Your task to perform on an android device: turn on improve location accuracy Image 0: 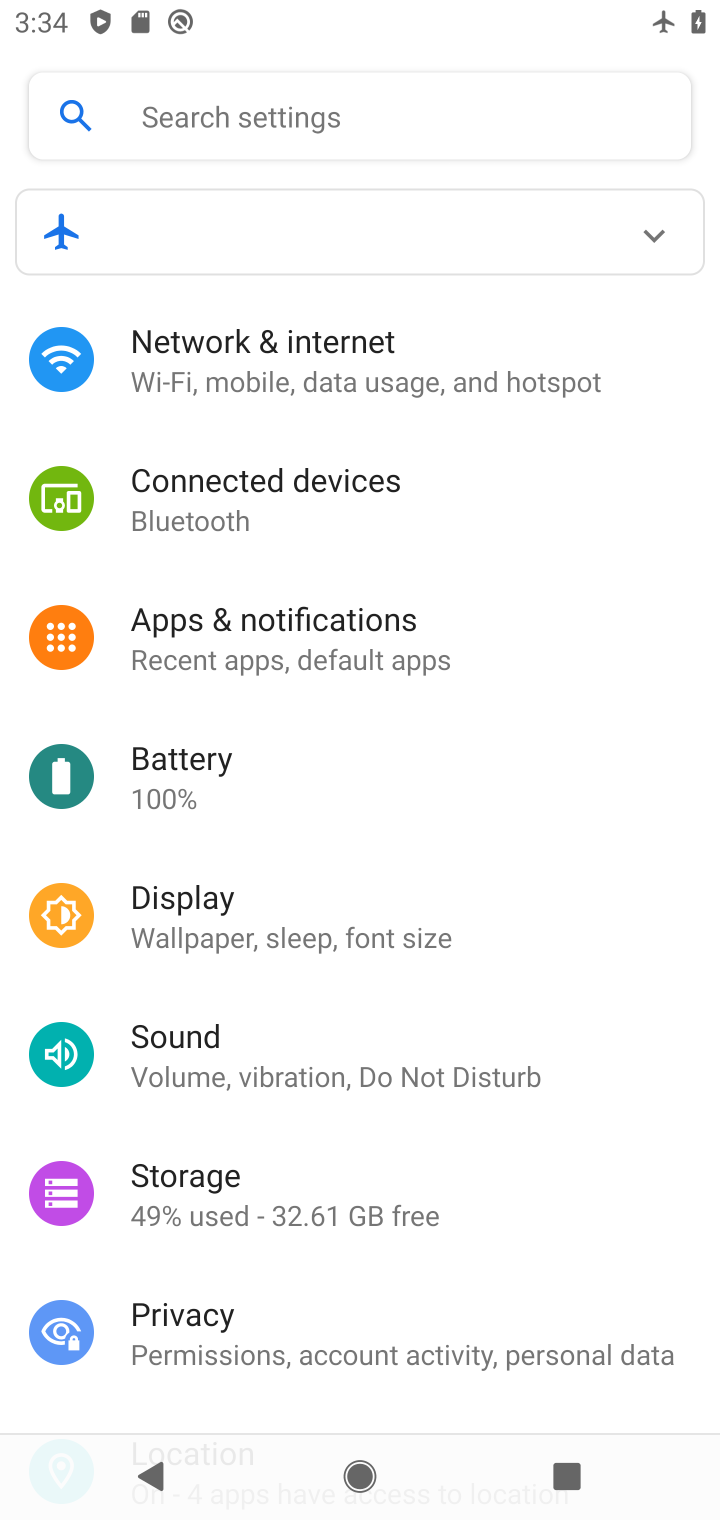
Step 0: click (530, 153)
Your task to perform on an android device: turn on improve location accuracy Image 1: 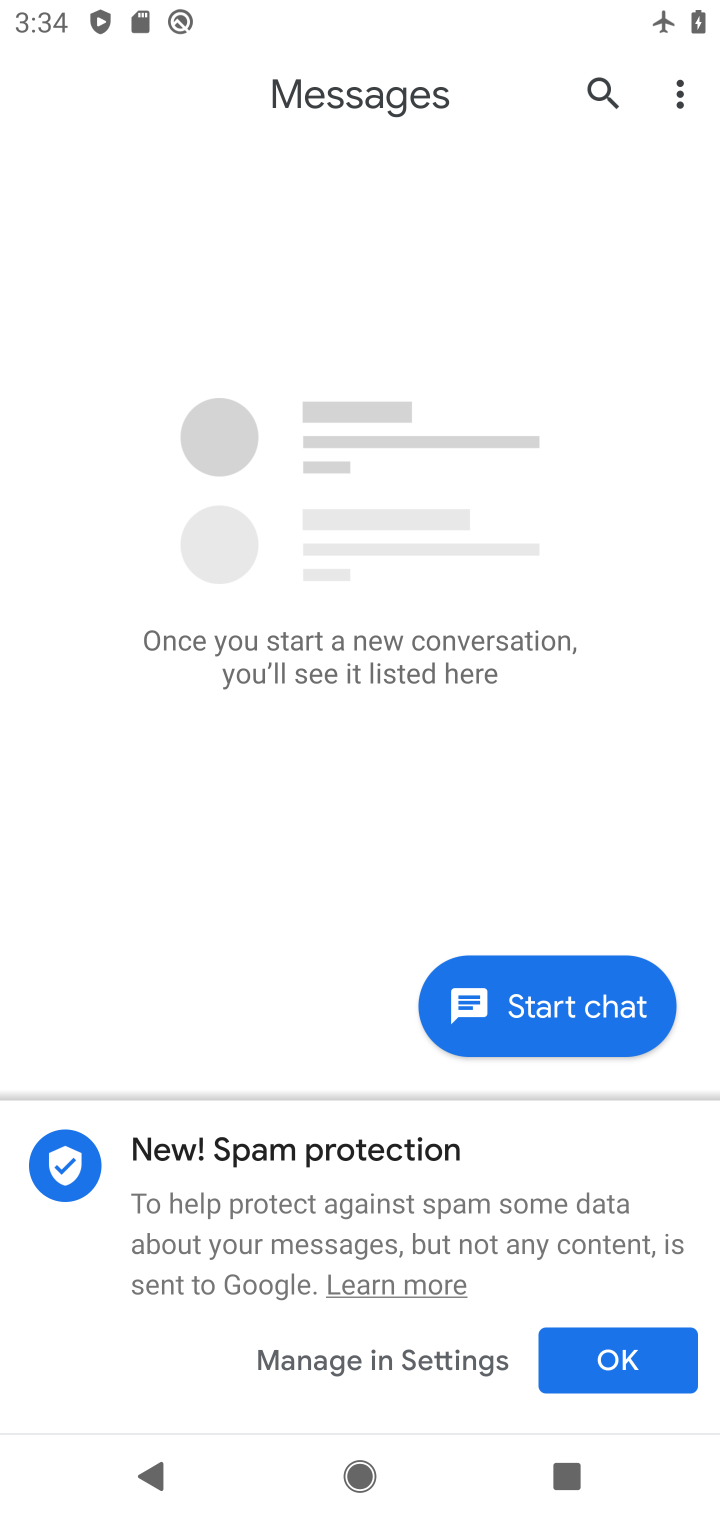
Step 1: press home button
Your task to perform on an android device: turn on improve location accuracy Image 2: 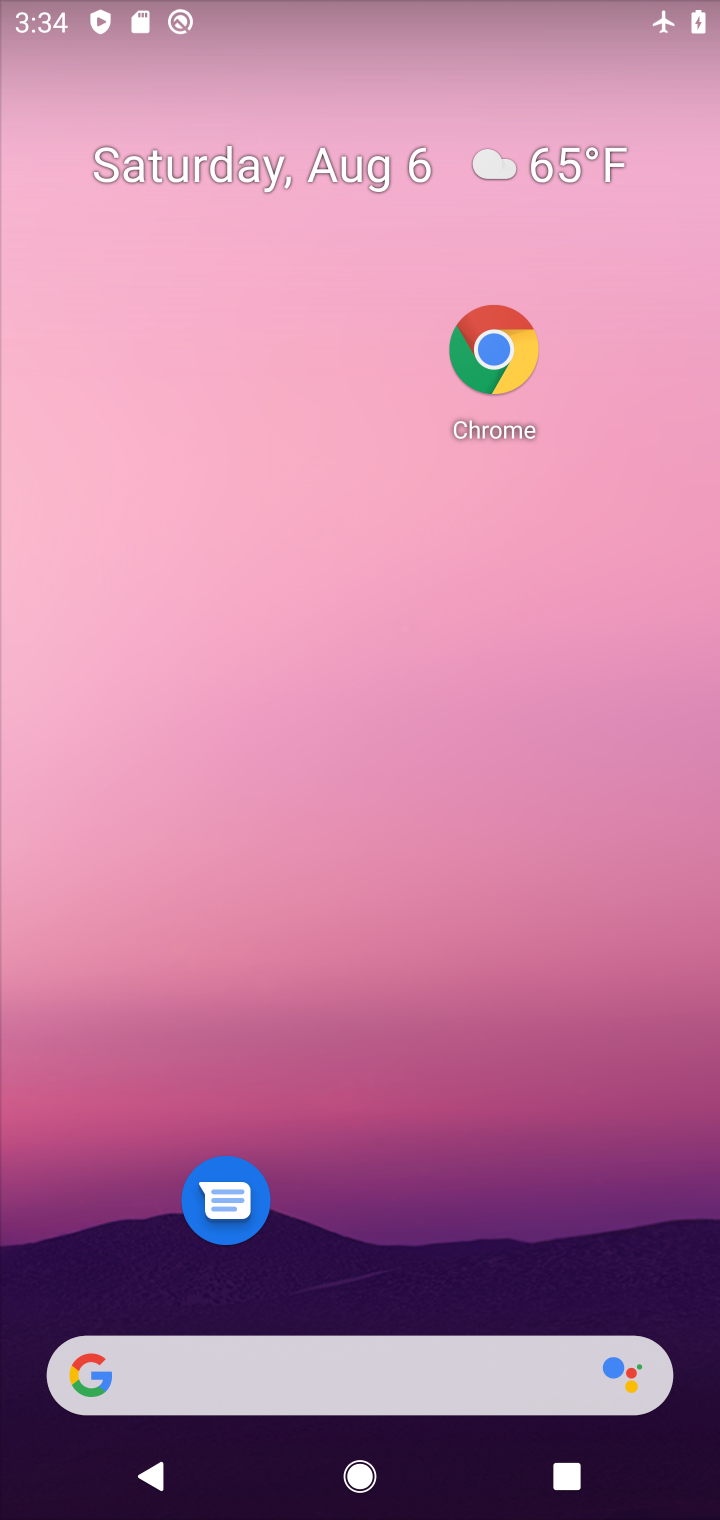
Step 2: drag from (291, 1296) to (490, 437)
Your task to perform on an android device: turn on improve location accuracy Image 3: 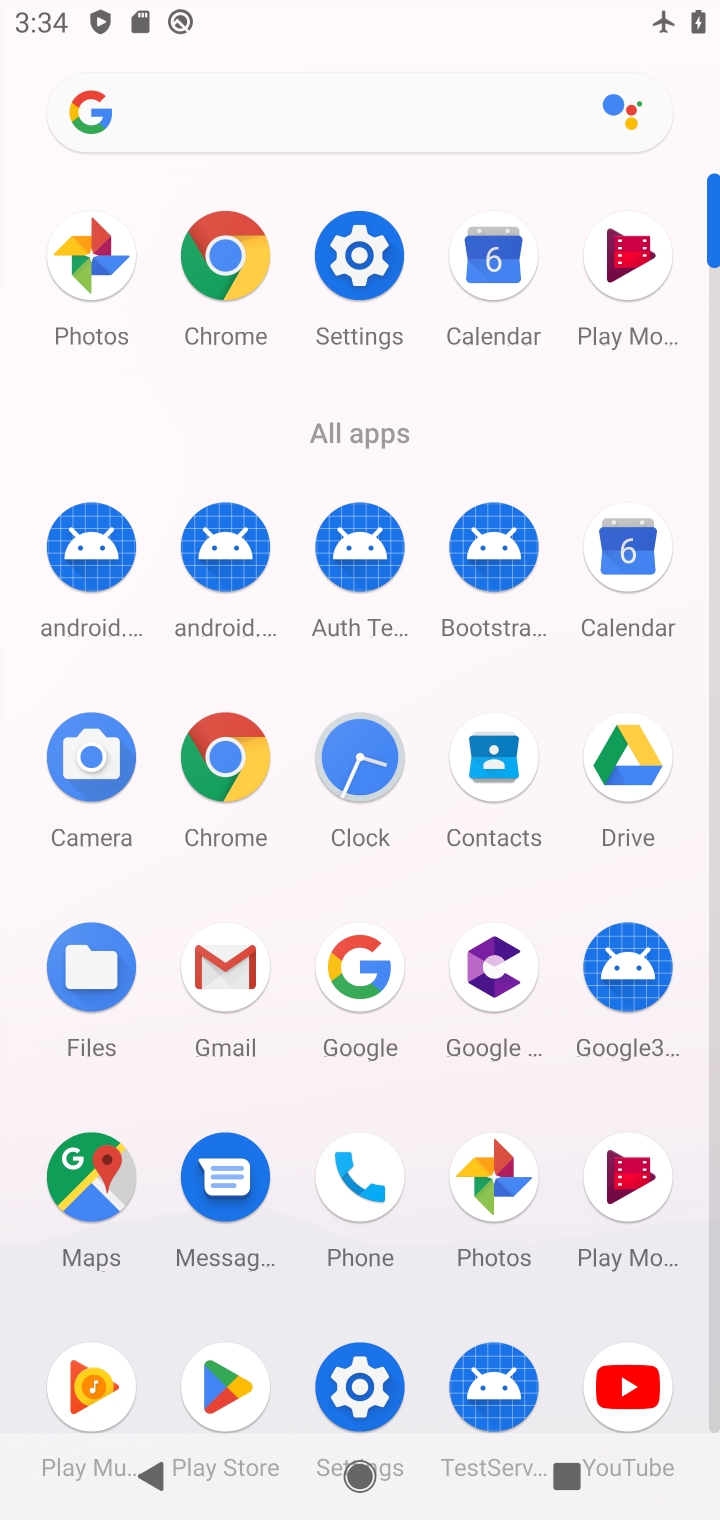
Step 3: click (375, 1383)
Your task to perform on an android device: turn on improve location accuracy Image 4: 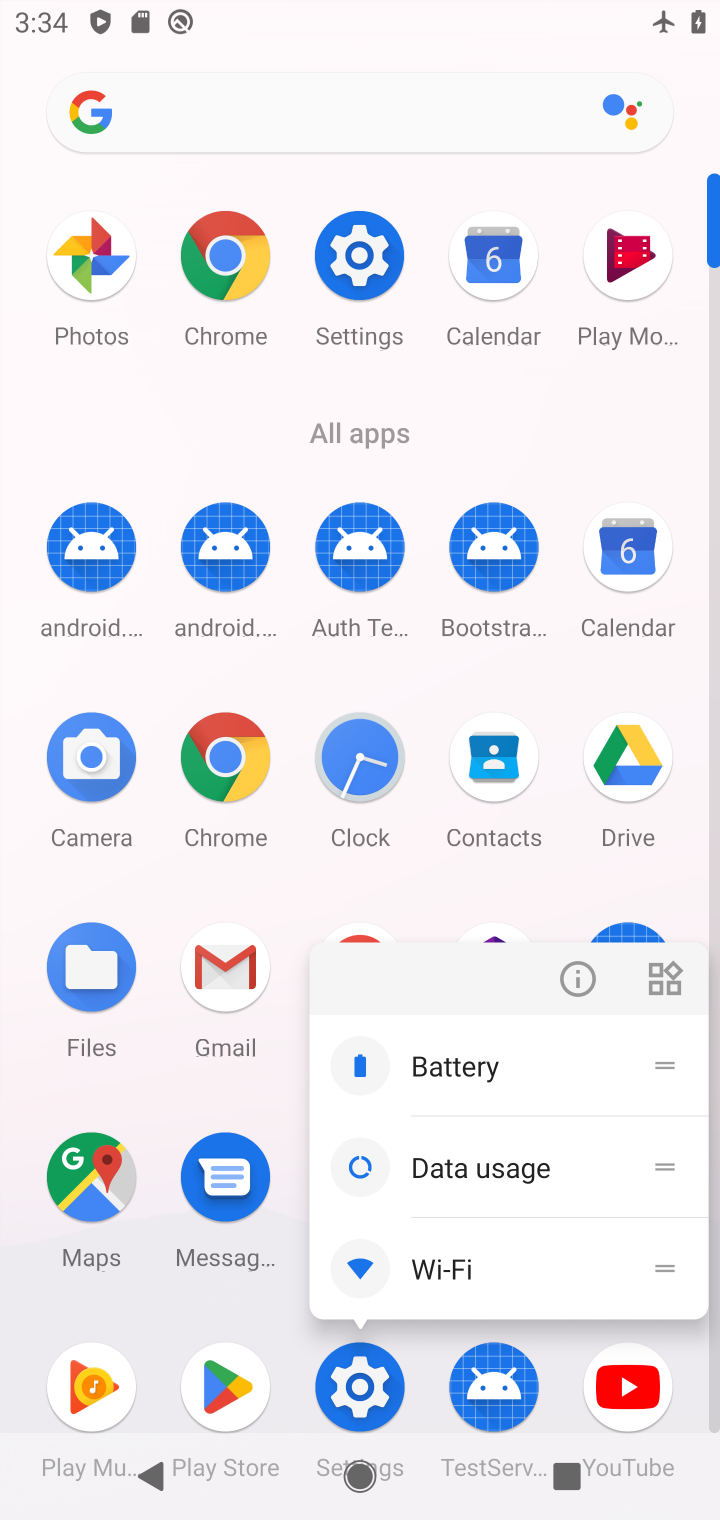
Step 4: click (375, 1383)
Your task to perform on an android device: turn on improve location accuracy Image 5: 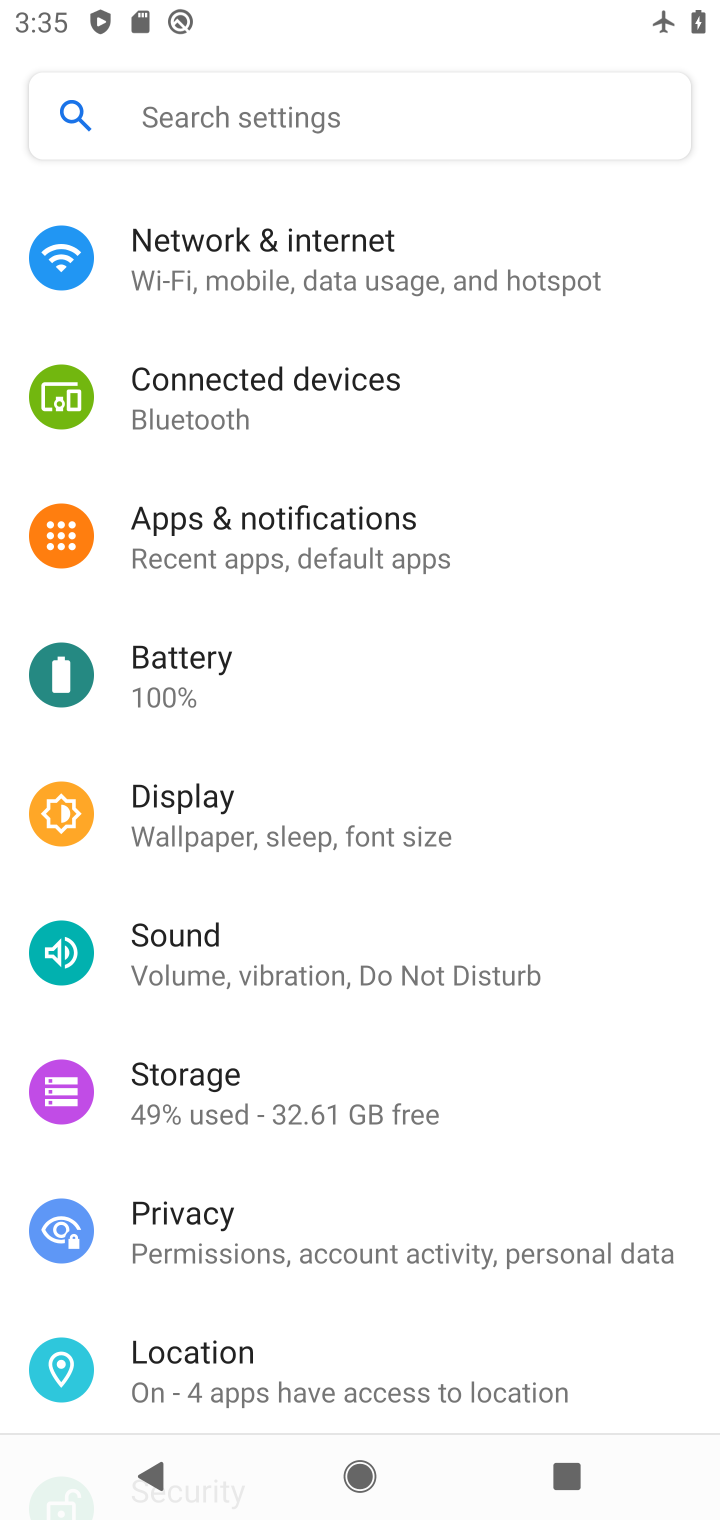
Step 5: click (396, 1377)
Your task to perform on an android device: turn on improve location accuracy Image 6: 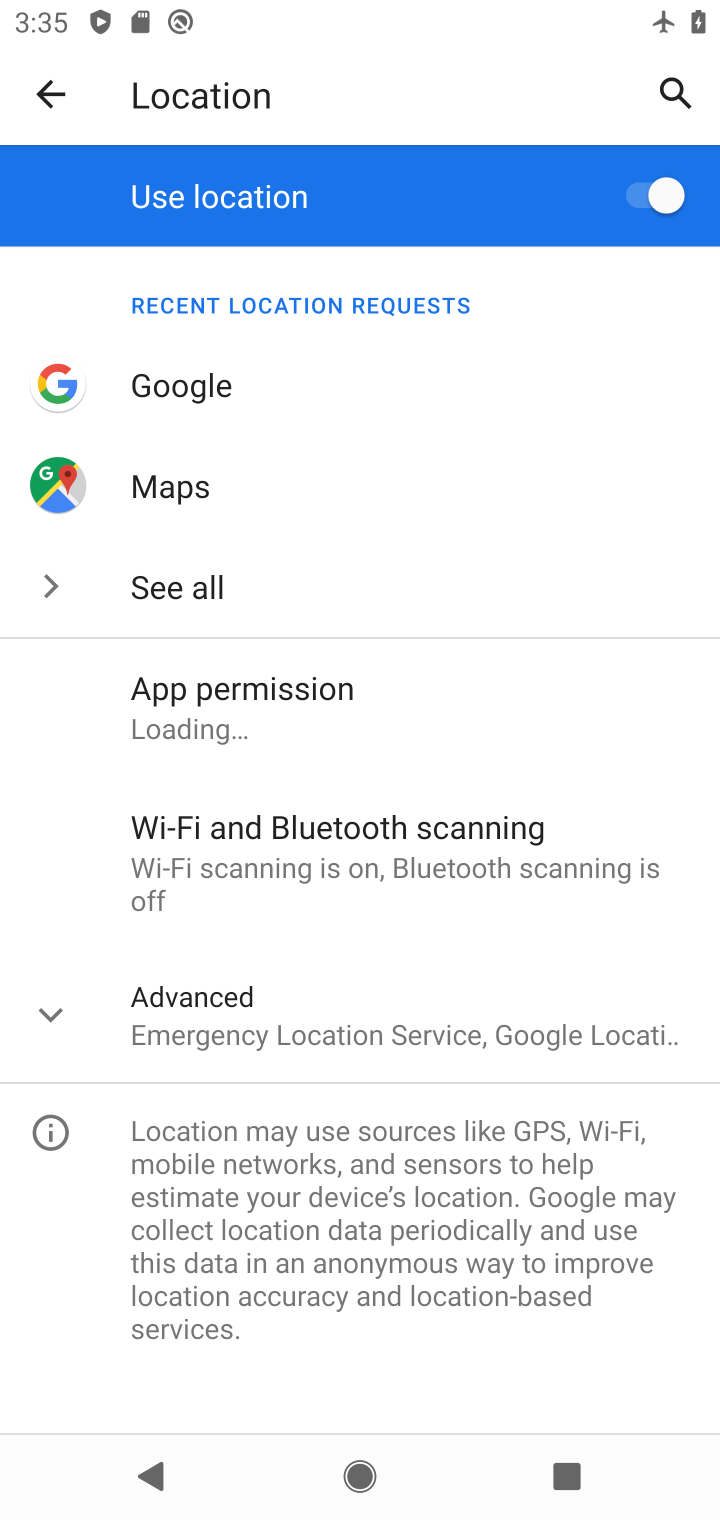
Step 6: click (216, 1015)
Your task to perform on an android device: turn on improve location accuracy Image 7: 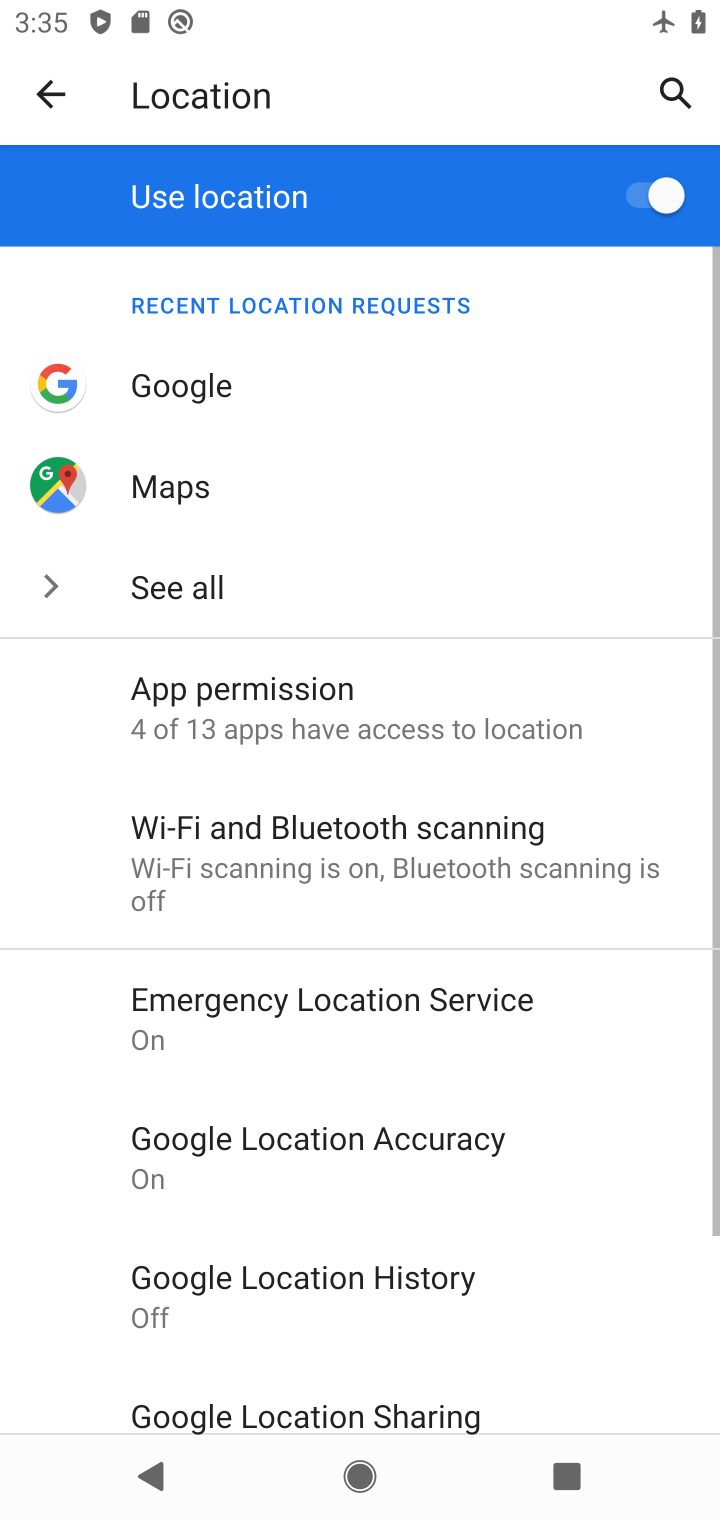
Step 7: drag from (337, 1279) to (418, 478)
Your task to perform on an android device: turn on improve location accuracy Image 8: 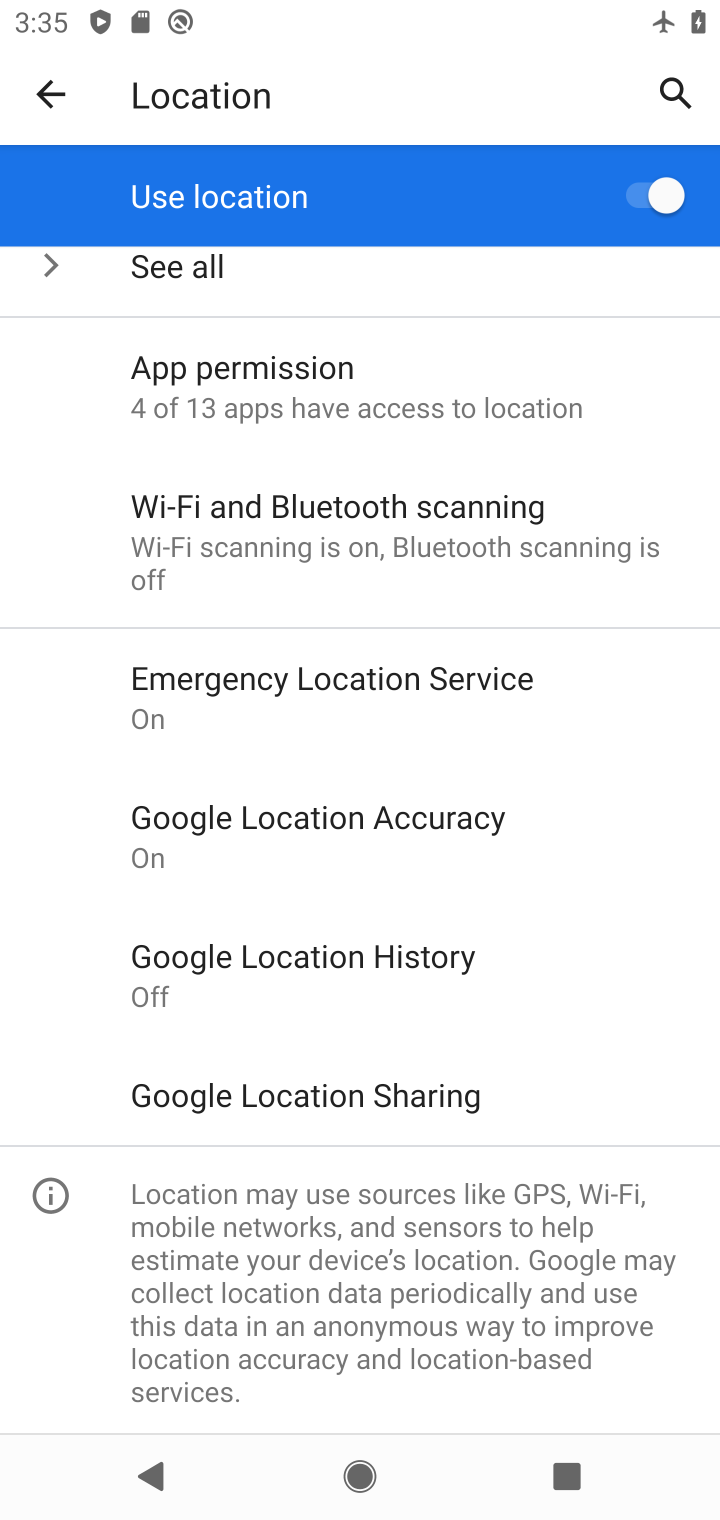
Step 8: click (237, 848)
Your task to perform on an android device: turn on improve location accuracy Image 9: 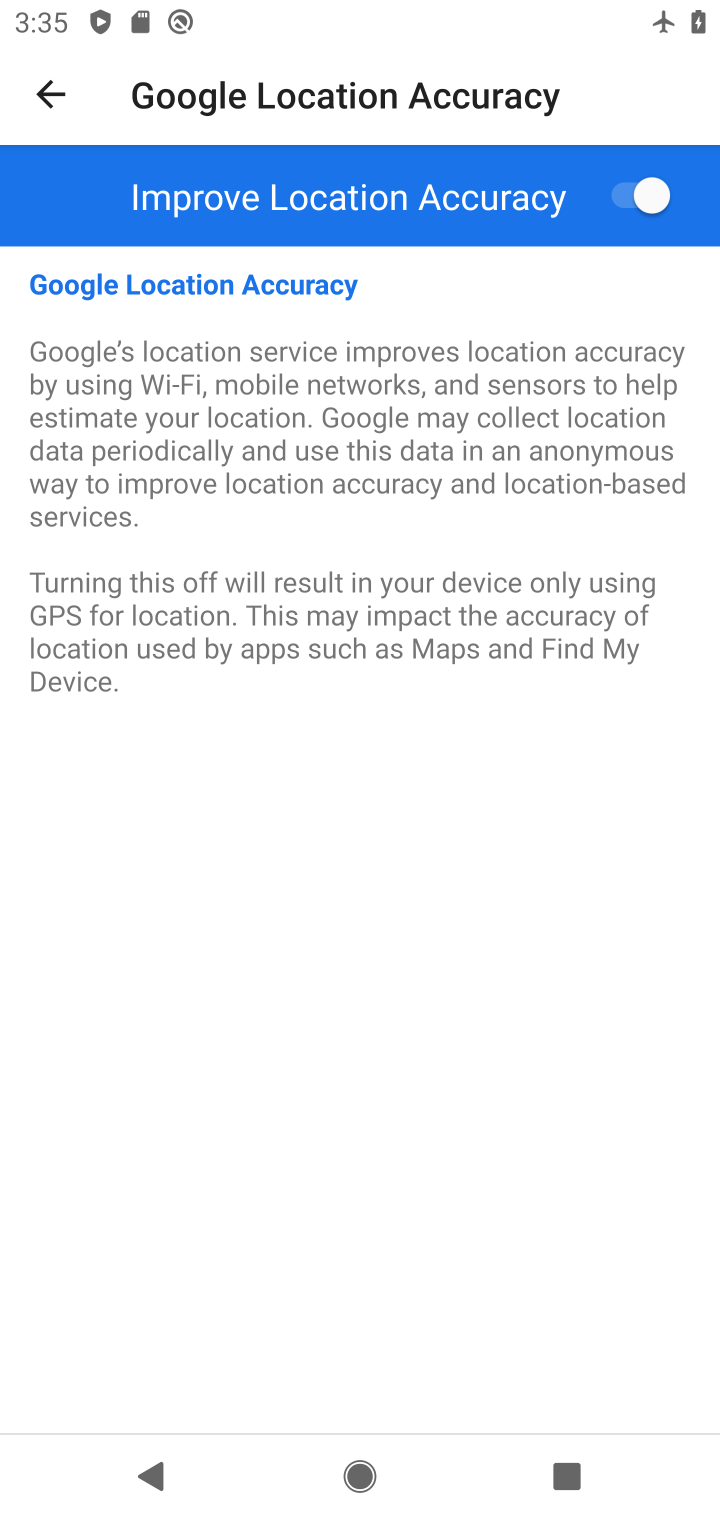
Step 9: task complete